Your task to perform on an android device: Toggle the flashlight Image 0: 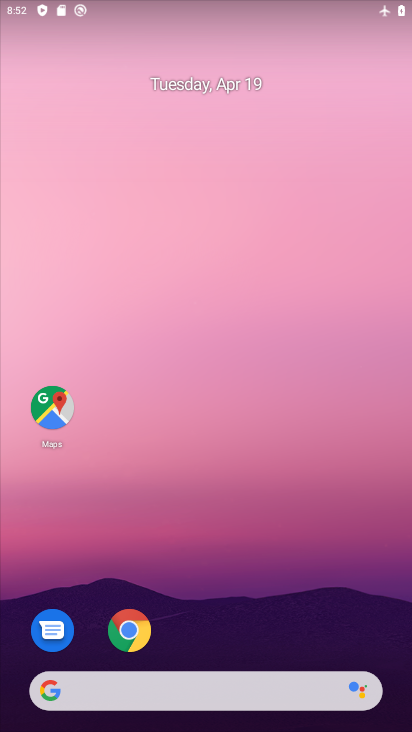
Step 0: drag from (279, 20) to (277, 351)
Your task to perform on an android device: Toggle the flashlight Image 1: 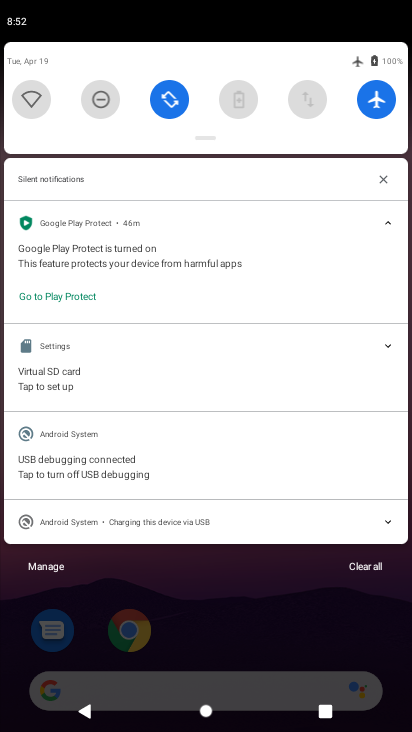
Step 1: task complete